Your task to perform on an android device: Open calendar and show me the first week of next month Image 0: 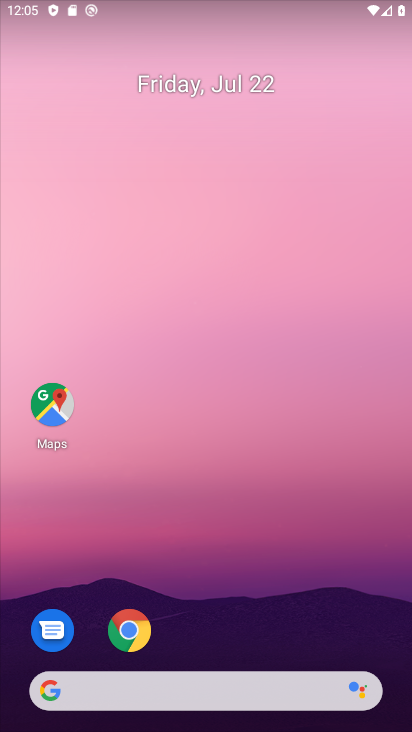
Step 0: drag from (268, 635) to (174, 141)
Your task to perform on an android device: Open calendar and show me the first week of next month Image 1: 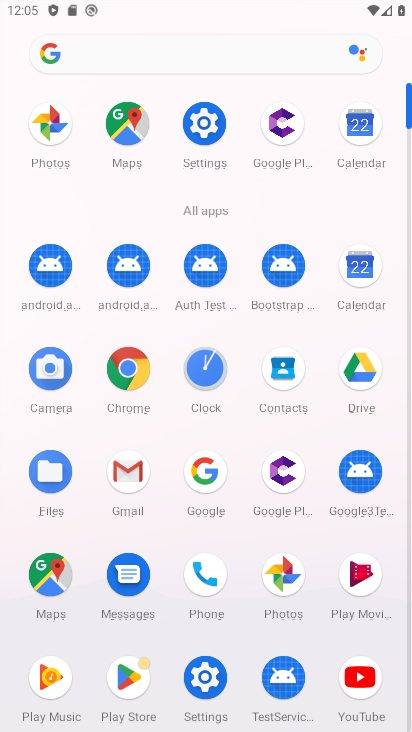
Step 1: click (355, 288)
Your task to perform on an android device: Open calendar and show me the first week of next month Image 2: 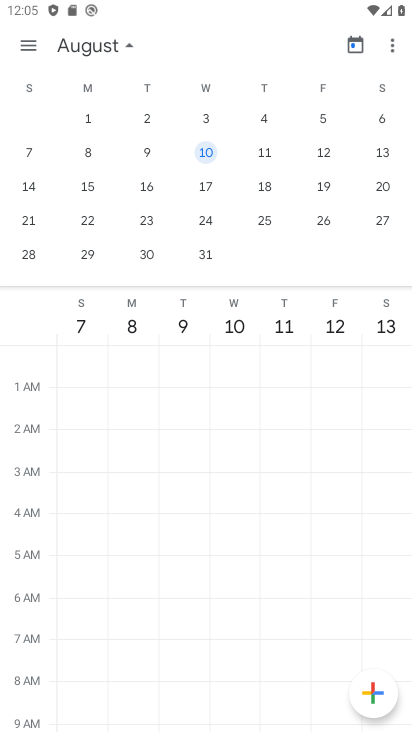
Step 2: click (203, 127)
Your task to perform on an android device: Open calendar and show me the first week of next month Image 3: 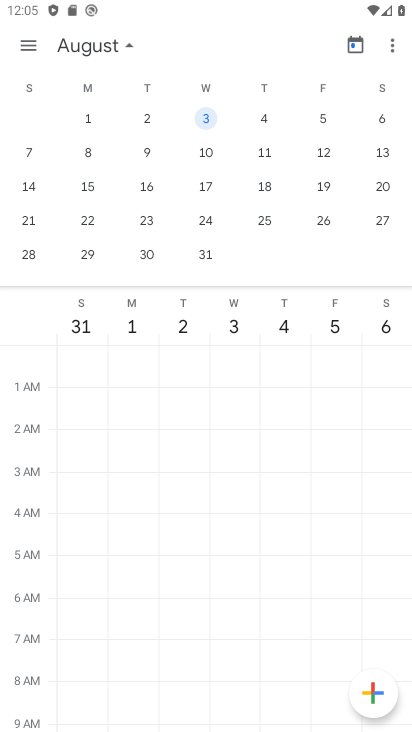
Step 3: task complete